Your task to perform on an android device: Play the last video I watched on Youtube Image 0: 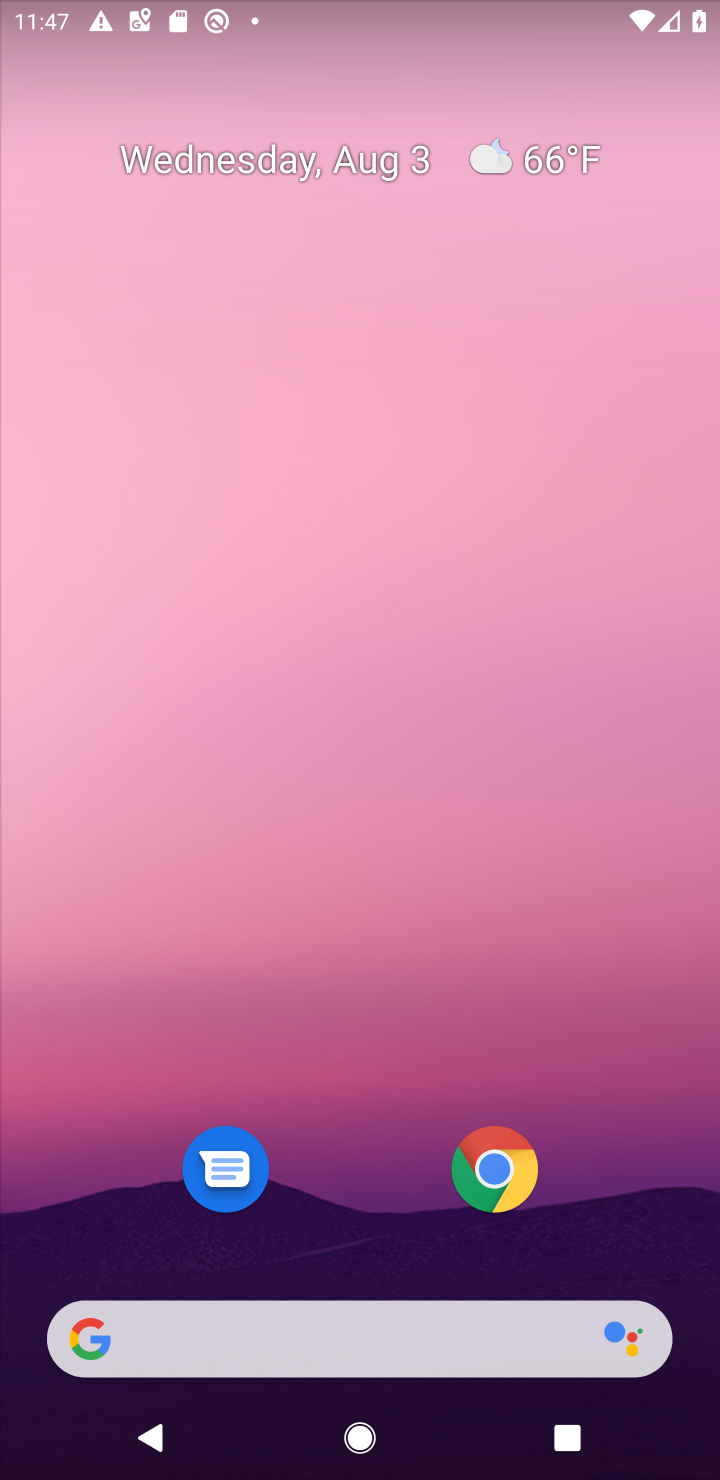
Step 0: drag from (634, 1055) to (717, 223)
Your task to perform on an android device: Play the last video I watched on Youtube Image 1: 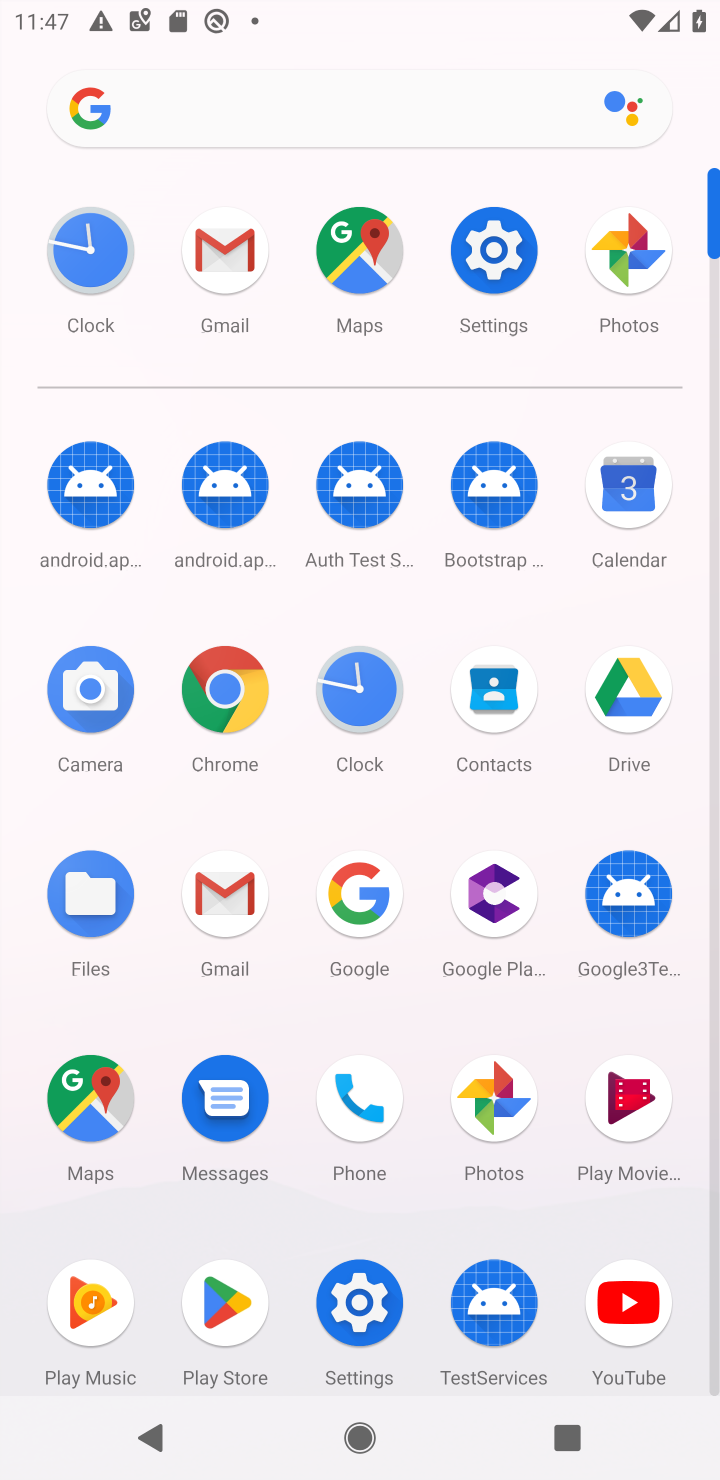
Step 1: click (634, 1298)
Your task to perform on an android device: Play the last video I watched on Youtube Image 2: 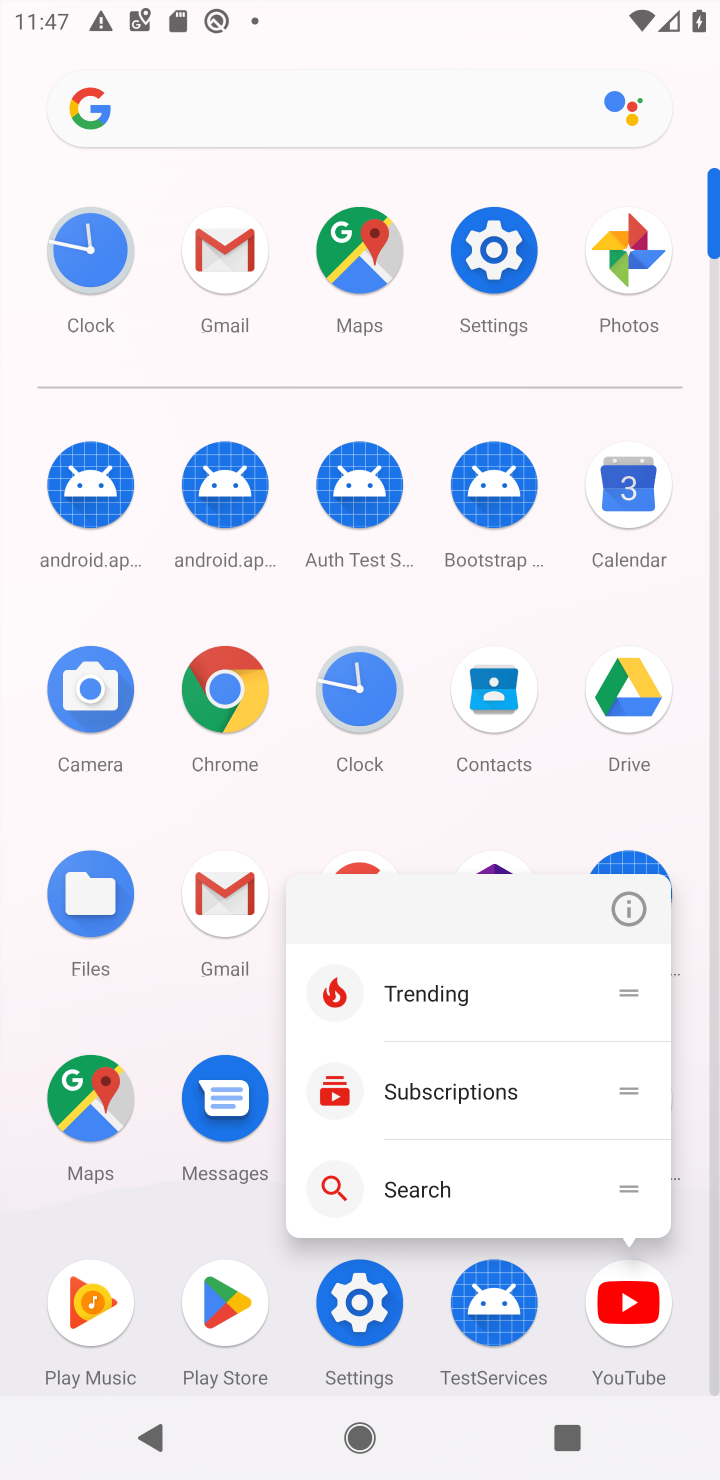
Step 2: click (634, 1298)
Your task to perform on an android device: Play the last video I watched on Youtube Image 3: 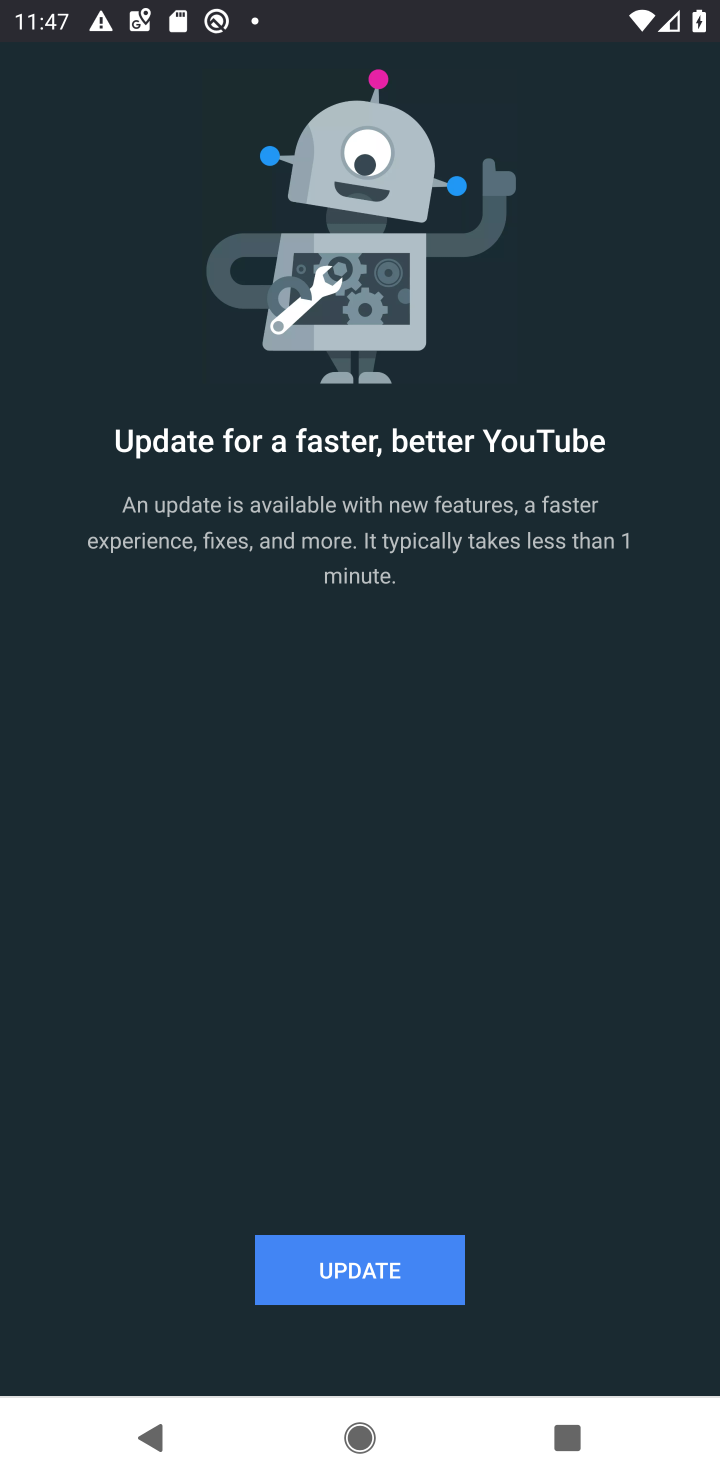
Step 3: click (362, 1282)
Your task to perform on an android device: Play the last video I watched on Youtube Image 4: 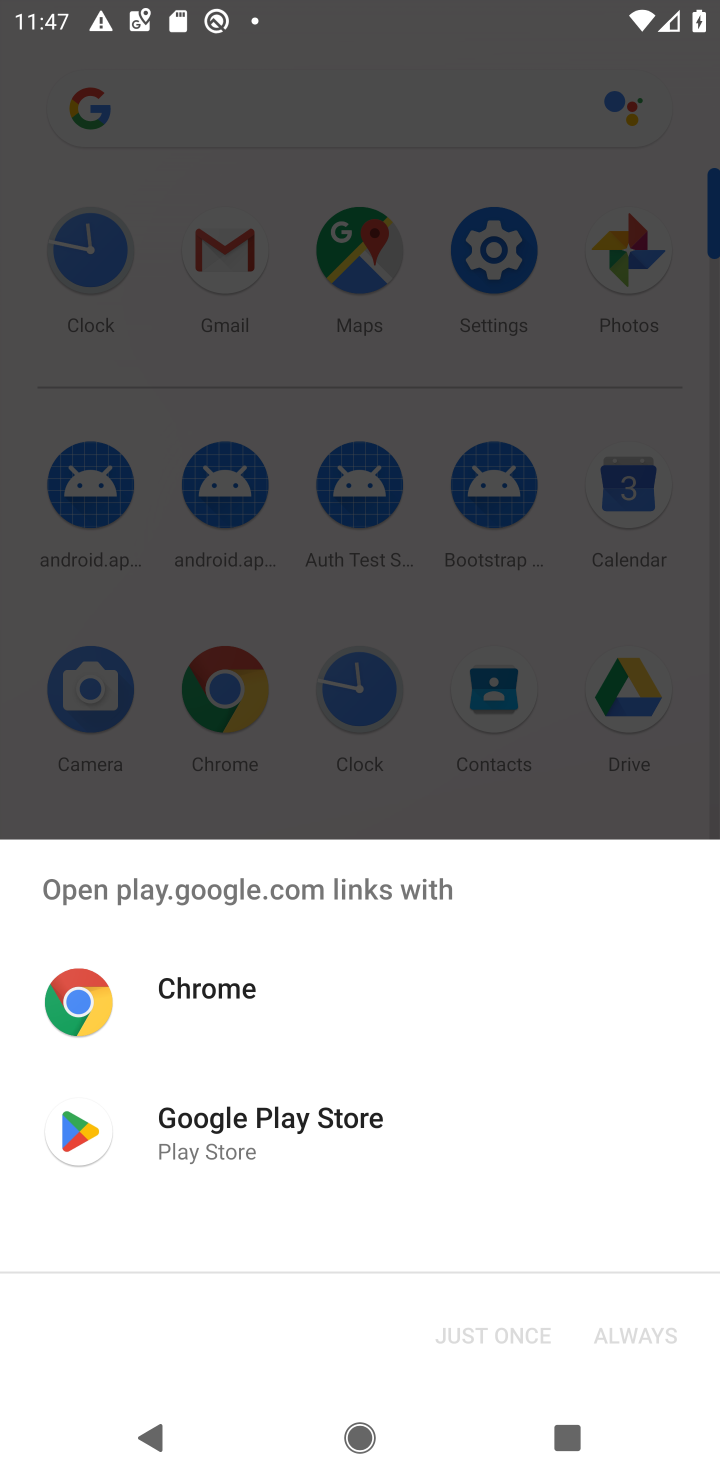
Step 4: click (107, 1143)
Your task to perform on an android device: Play the last video I watched on Youtube Image 5: 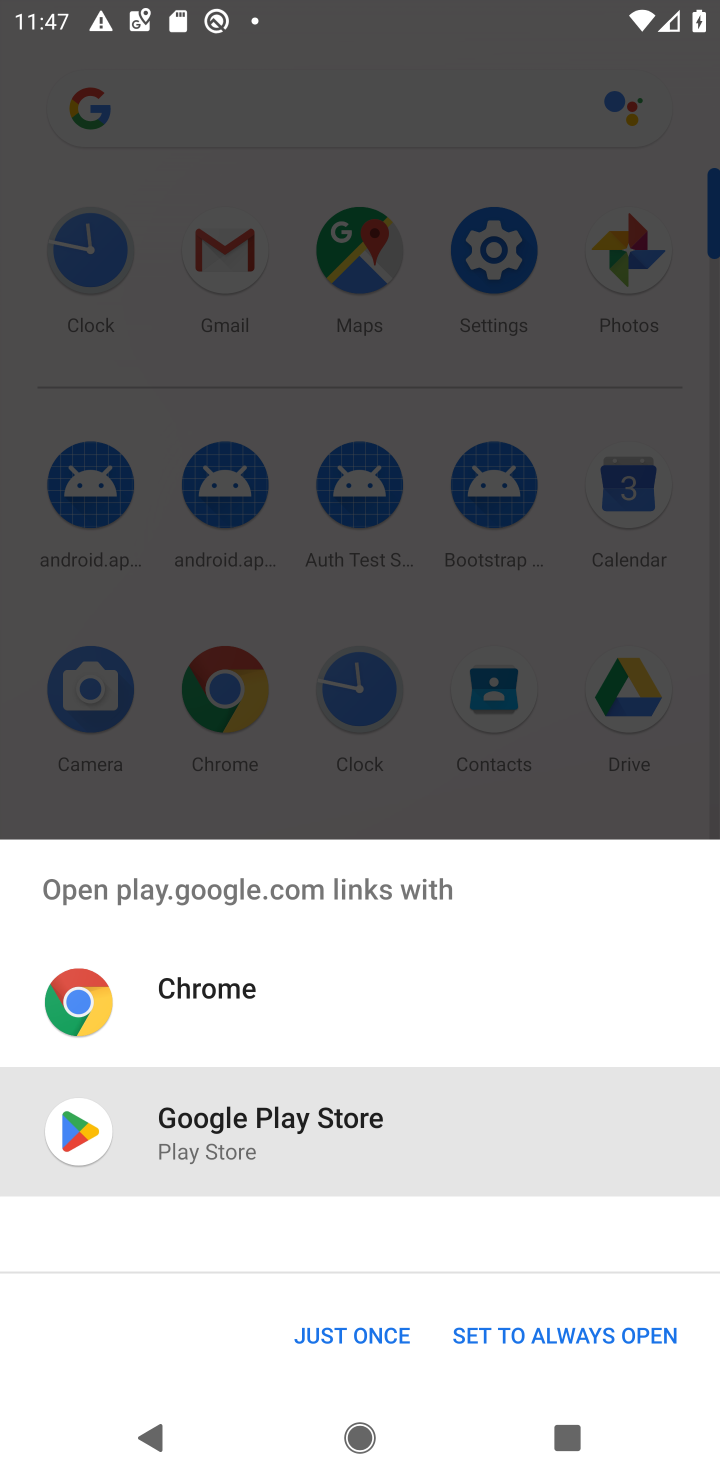
Step 5: click (325, 1335)
Your task to perform on an android device: Play the last video I watched on Youtube Image 6: 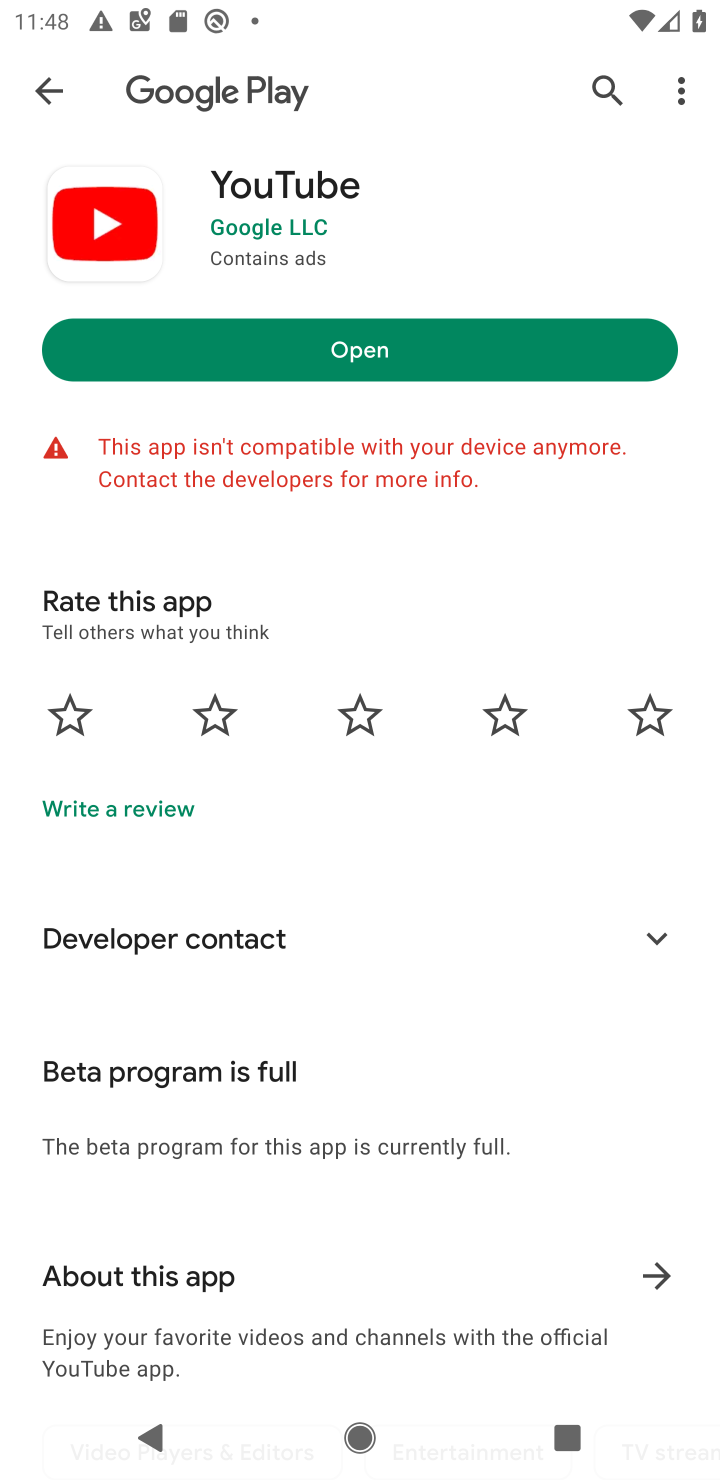
Step 6: click (329, 350)
Your task to perform on an android device: Play the last video I watched on Youtube Image 7: 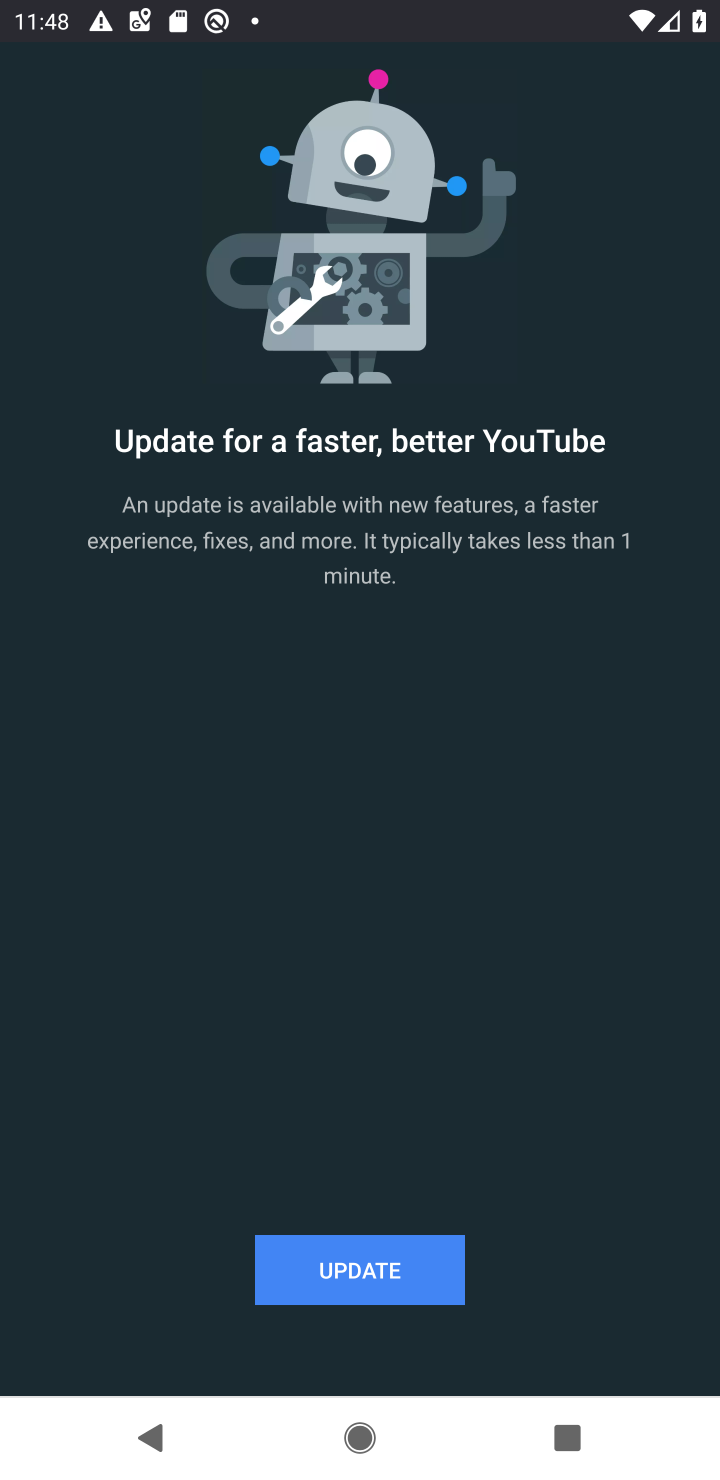
Step 7: click (391, 1283)
Your task to perform on an android device: Play the last video I watched on Youtube Image 8: 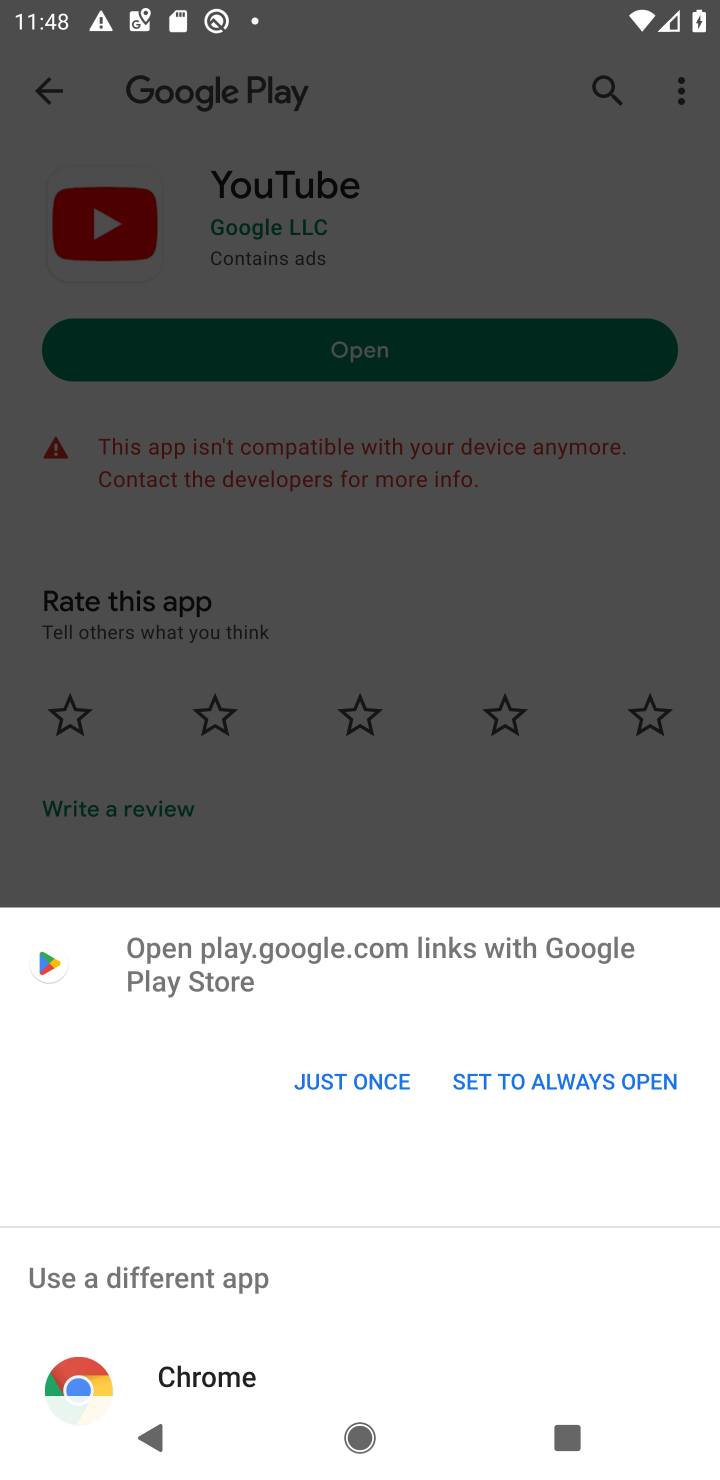
Step 8: click (334, 1092)
Your task to perform on an android device: Play the last video I watched on Youtube Image 9: 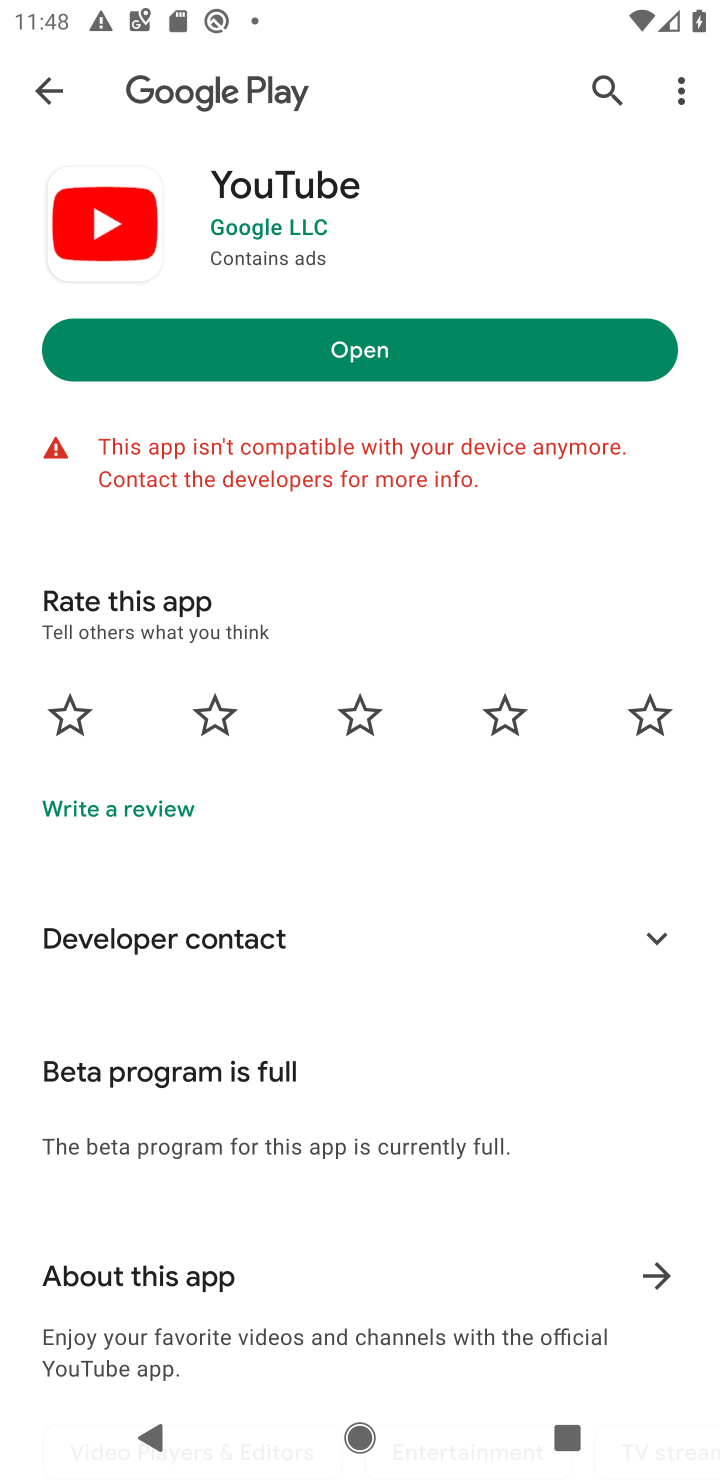
Step 9: task complete